Your task to perform on an android device: remove spam from my inbox in the gmail app Image 0: 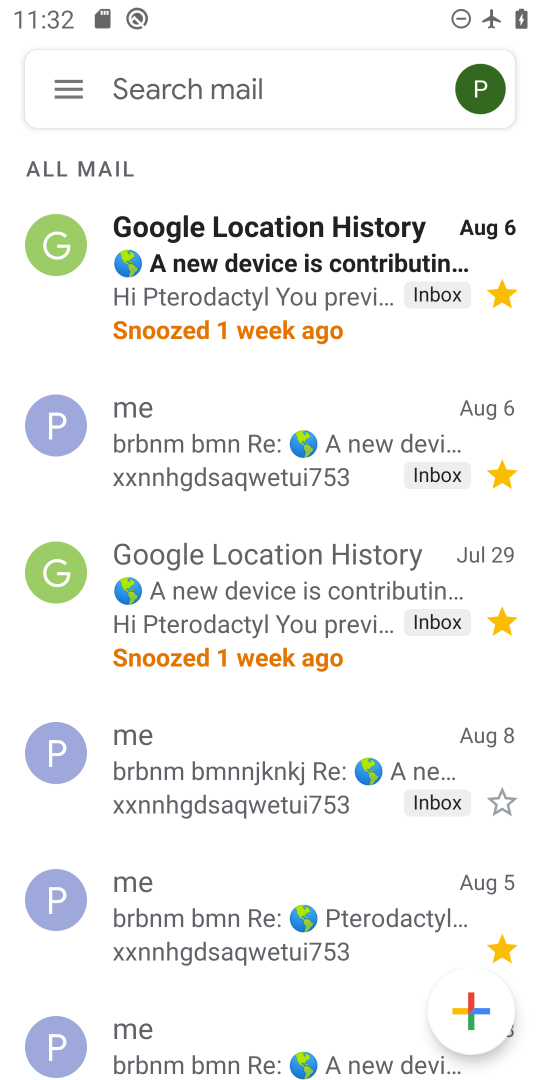
Step 0: click (70, 87)
Your task to perform on an android device: remove spam from my inbox in the gmail app Image 1: 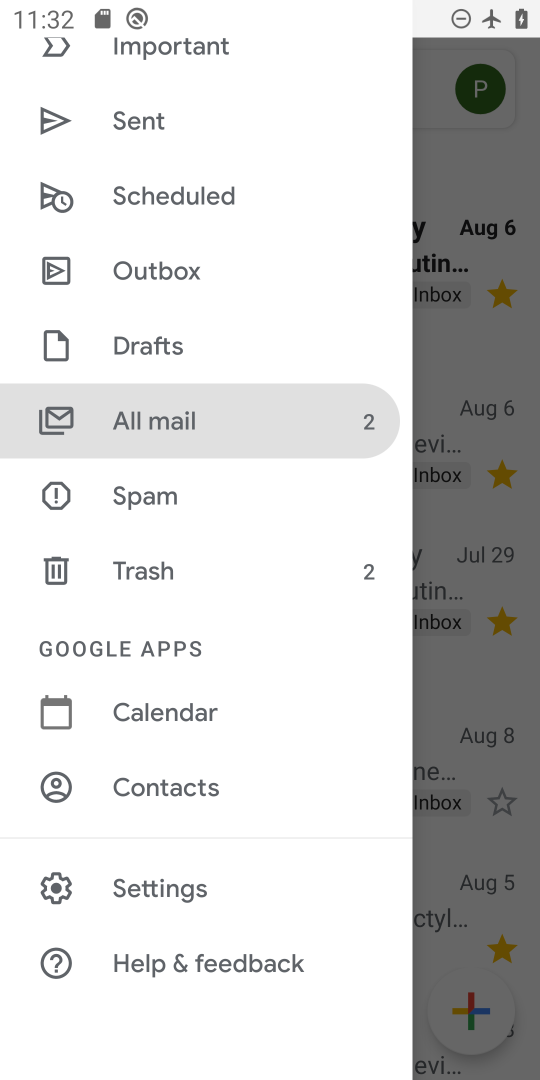
Step 1: click (148, 487)
Your task to perform on an android device: remove spam from my inbox in the gmail app Image 2: 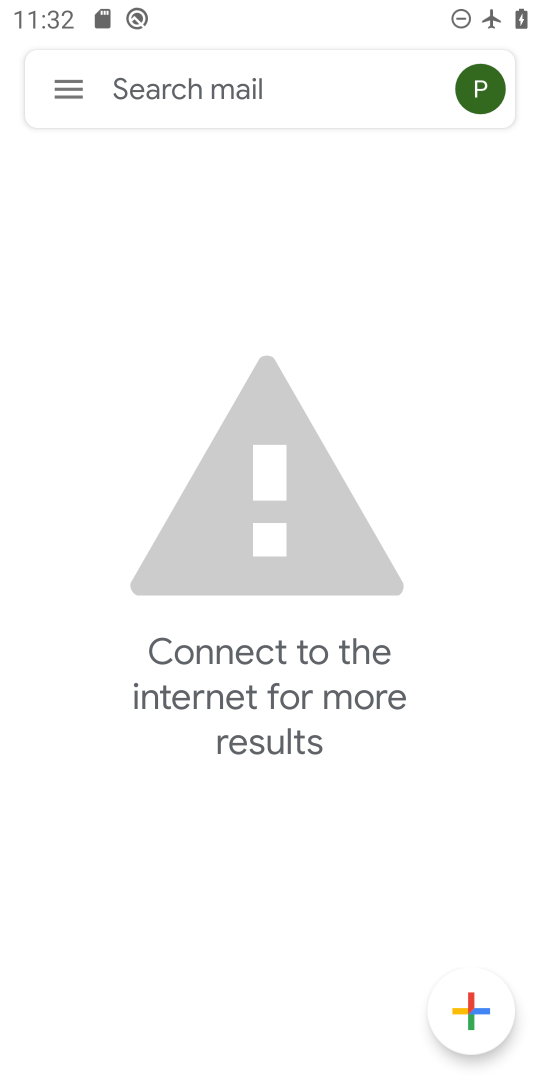
Step 2: task complete